Your task to perform on an android device: Go to Android settings Image 0: 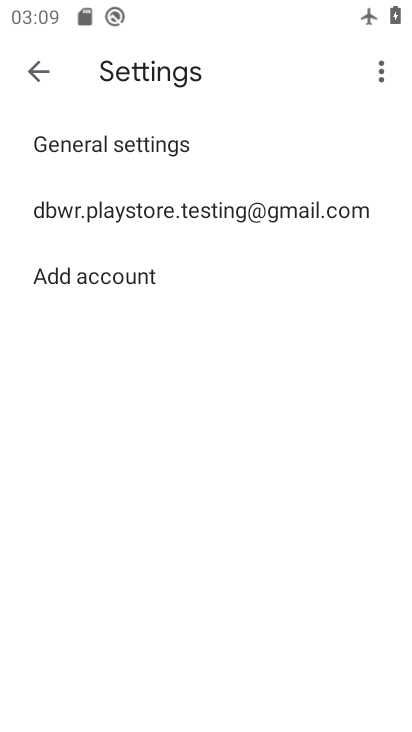
Step 0: press home button
Your task to perform on an android device: Go to Android settings Image 1: 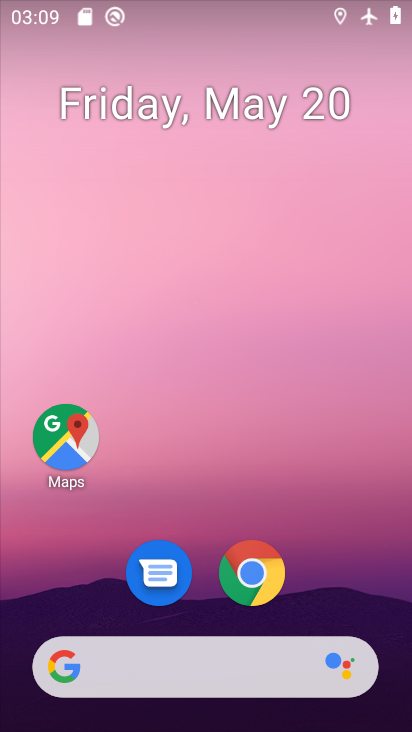
Step 1: drag from (205, 611) to (222, 163)
Your task to perform on an android device: Go to Android settings Image 2: 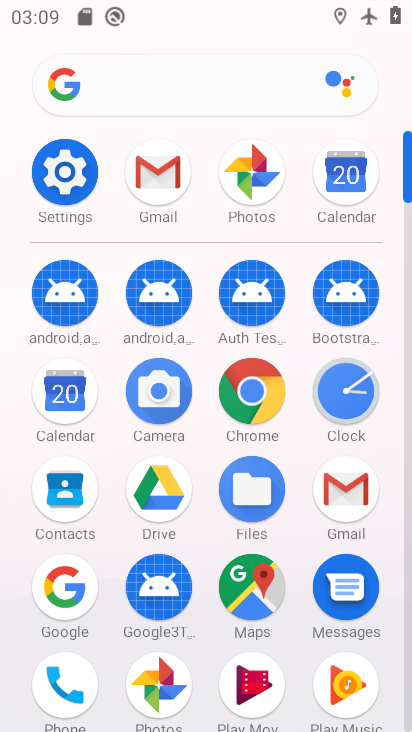
Step 2: click (71, 177)
Your task to perform on an android device: Go to Android settings Image 3: 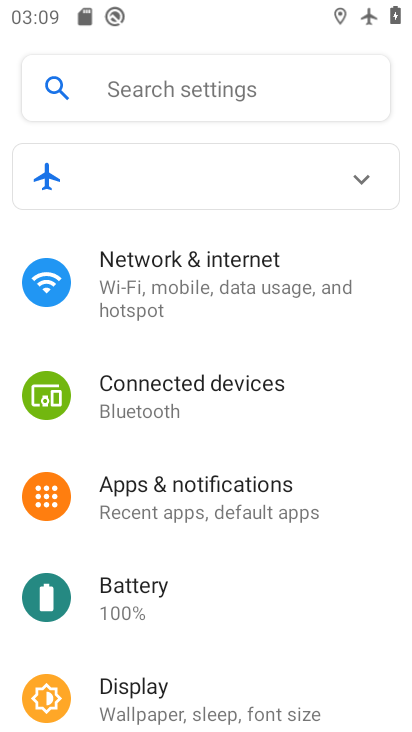
Step 3: task complete